Your task to perform on an android device: Do I have any events today? Image 0: 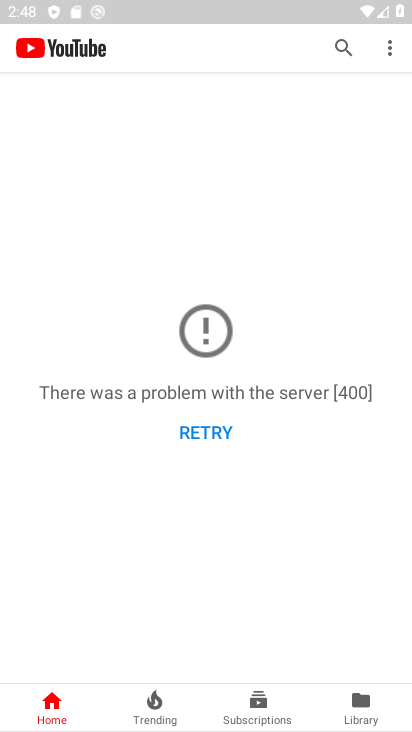
Step 0: press home button
Your task to perform on an android device: Do I have any events today? Image 1: 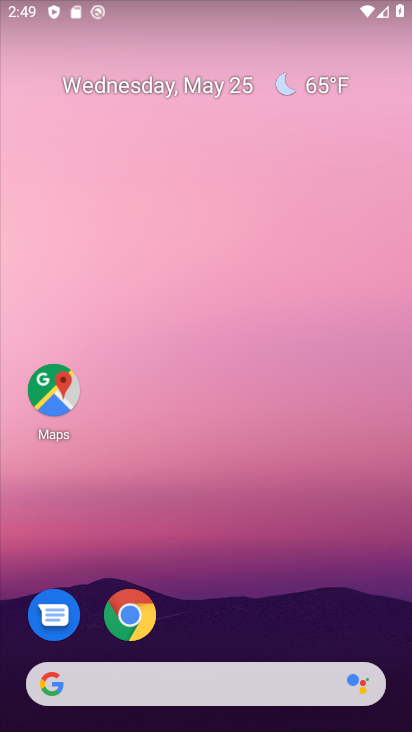
Step 1: drag from (213, 556) to (203, 0)
Your task to perform on an android device: Do I have any events today? Image 2: 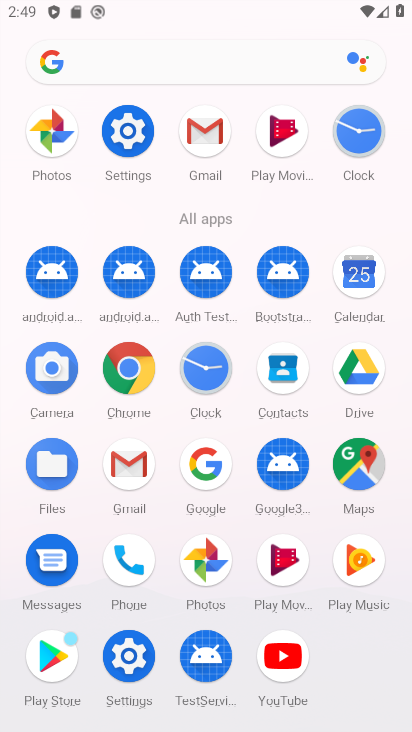
Step 2: click (350, 275)
Your task to perform on an android device: Do I have any events today? Image 3: 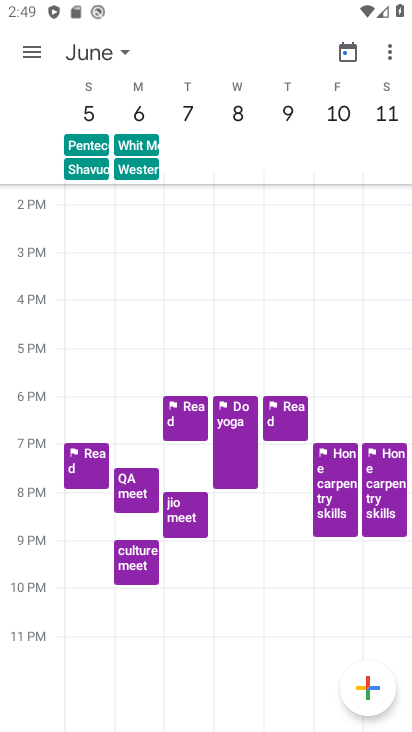
Step 3: click (82, 52)
Your task to perform on an android device: Do I have any events today? Image 4: 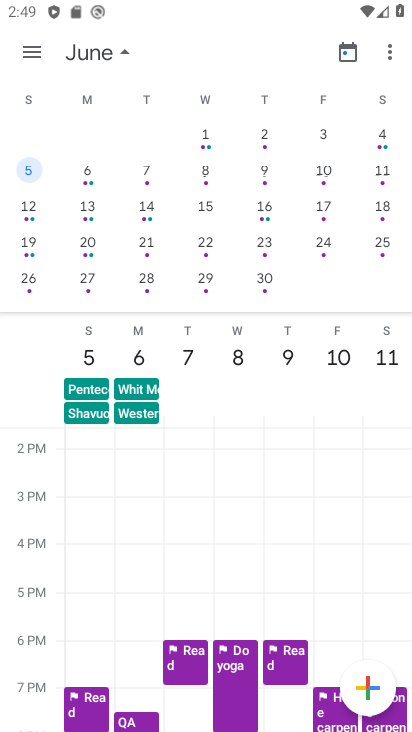
Step 4: drag from (31, 176) to (403, 220)
Your task to perform on an android device: Do I have any events today? Image 5: 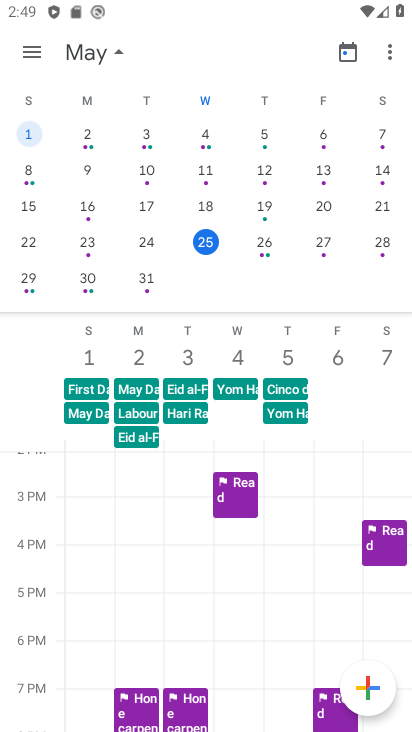
Step 5: click (206, 239)
Your task to perform on an android device: Do I have any events today? Image 6: 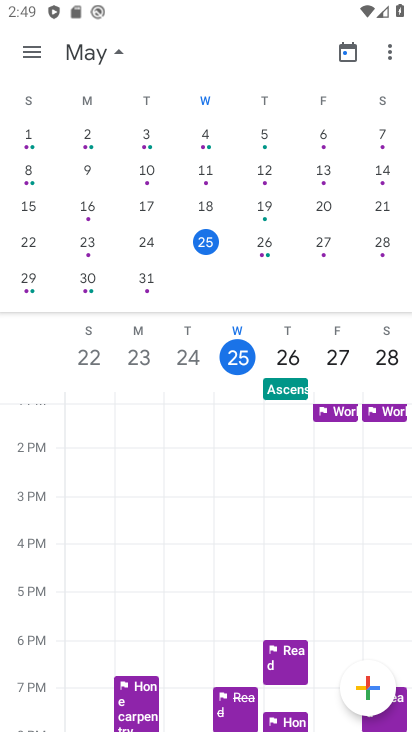
Step 6: click (38, 55)
Your task to perform on an android device: Do I have any events today? Image 7: 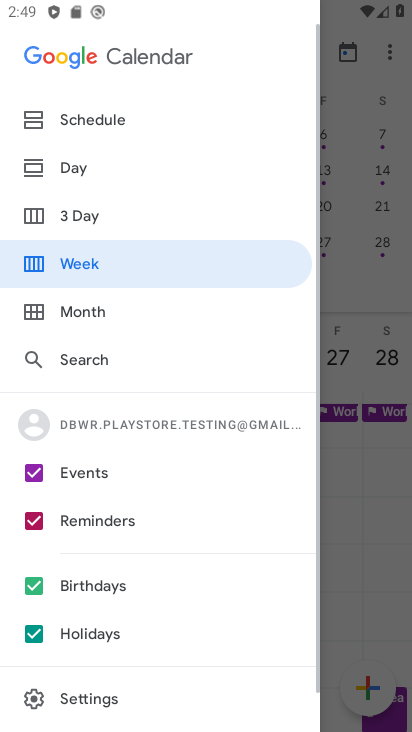
Step 7: click (64, 117)
Your task to perform on an android device: Do I have any events today? Image 8: 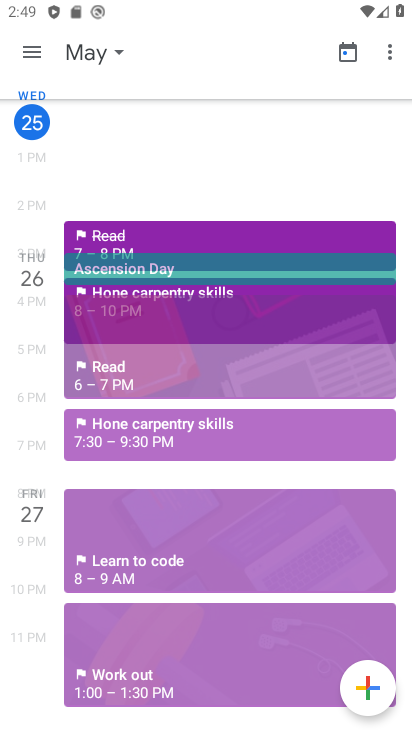
Step 8: click (42, 46)
Your task to perform on an android device: Do I have any events today? Image 9: 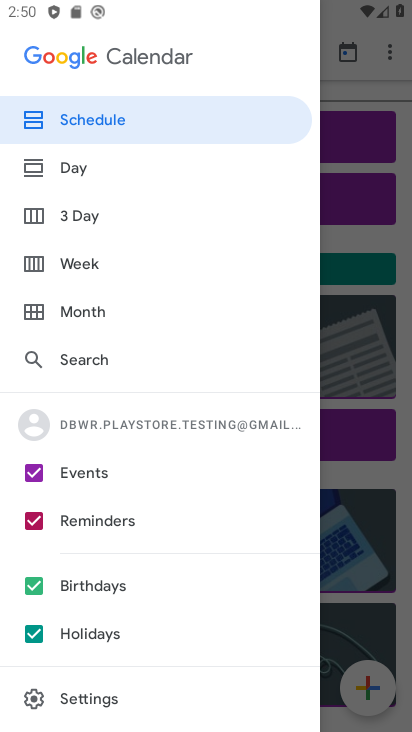
Step 9: click (83, 173)
Your task to perform on an android device: Do I have any events today? Image 10: 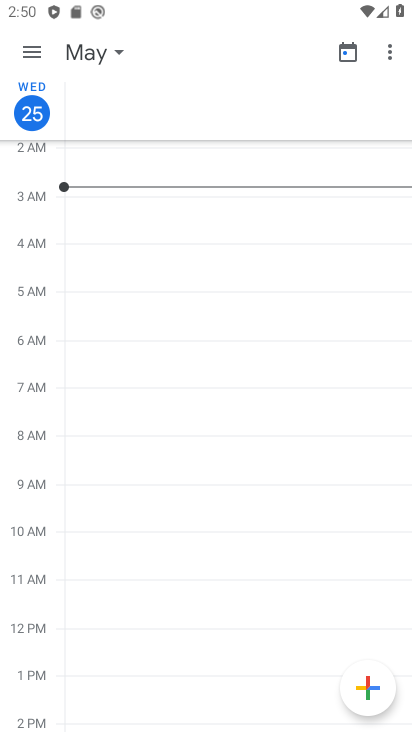
Step 10: task complete